Your task to perform on an android device: install app "Flipkart Online Shopping App" Image 0: 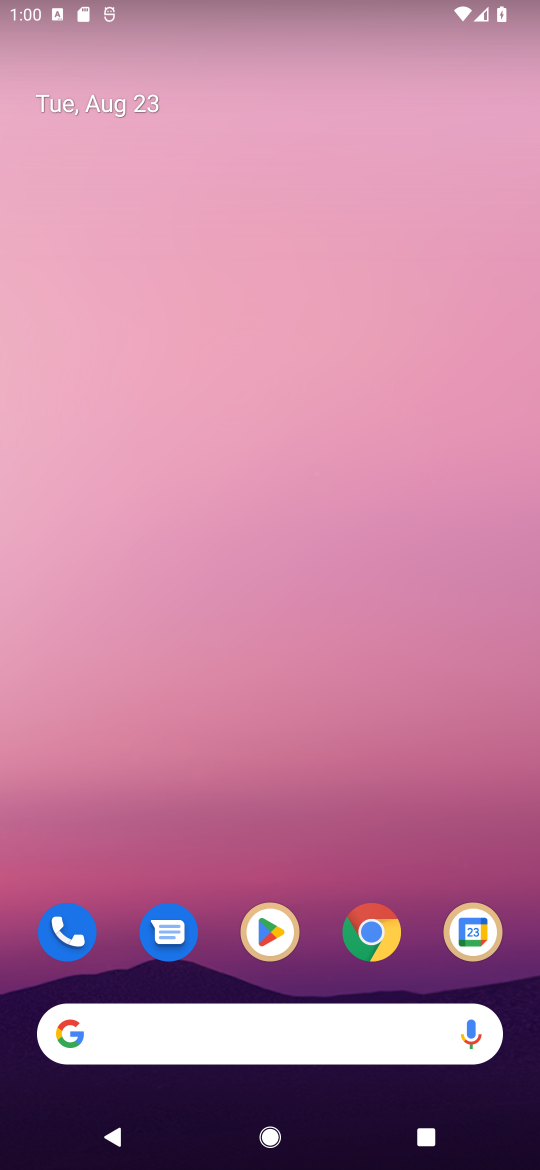
Step 0: click (284, 943)
Your task to perform on an android device: install app "Flipkart Online Shopping App" Image 1: 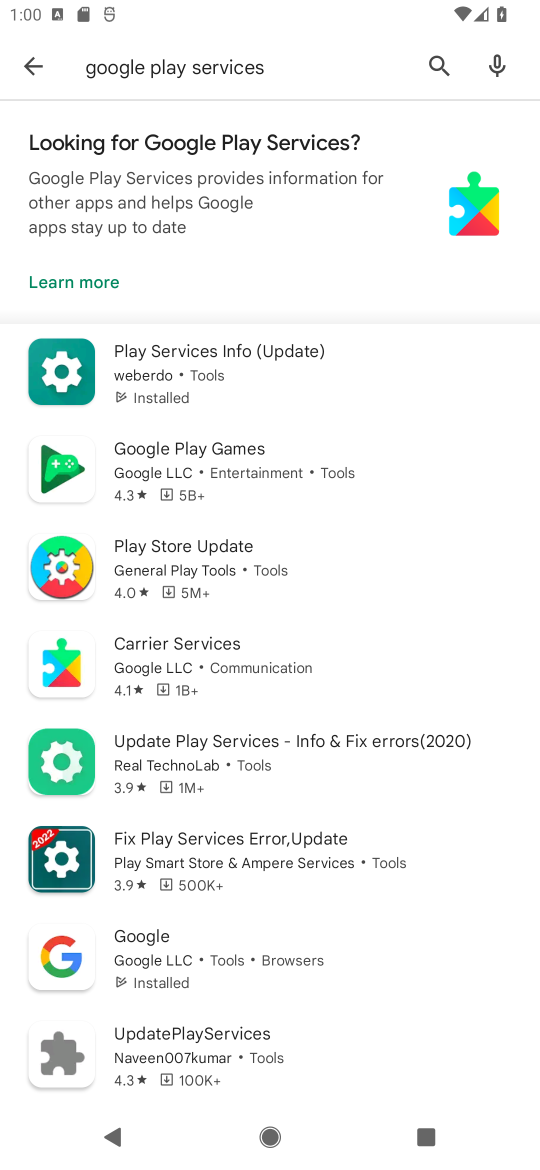
Step 1: click (419, 57)
Your task to perform on an android device: install app "Flipkart Online Shopping App" Image 2: 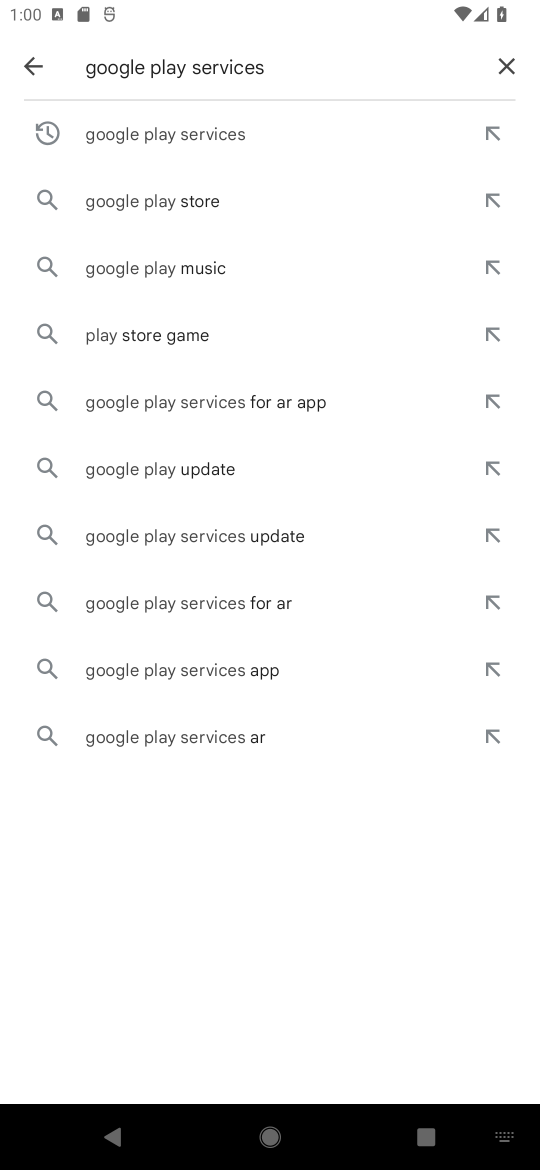
Step 2: click (516, 58)
Your task to perform on an android device: install app "Flipkart Online Shopping App" Image 3: 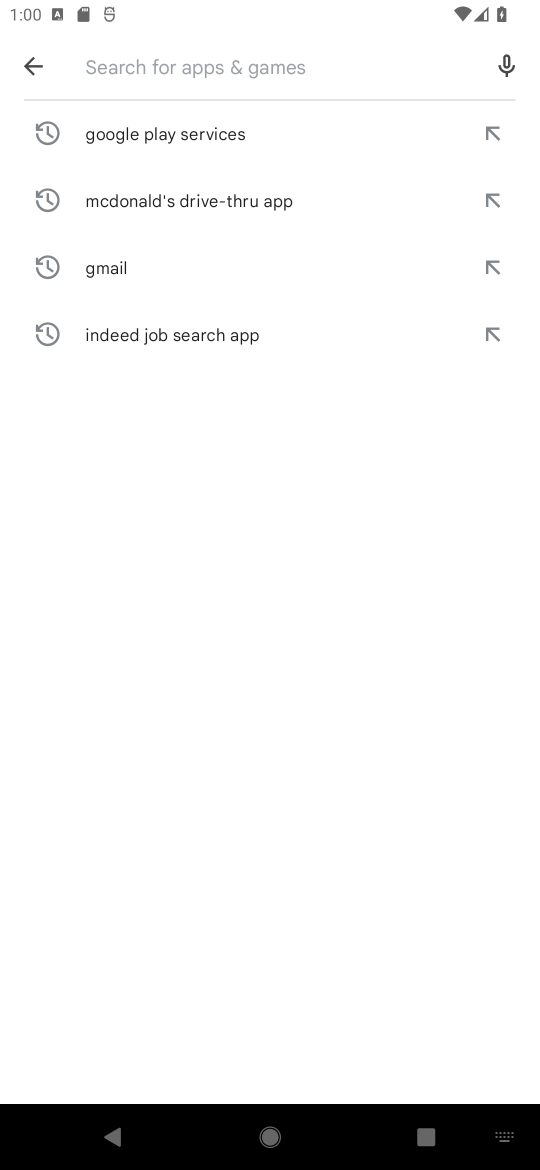
Step 3: click (257, 48)
Your task to perform on an android device: install app "Flipkart Online Shopping App" Image 4: 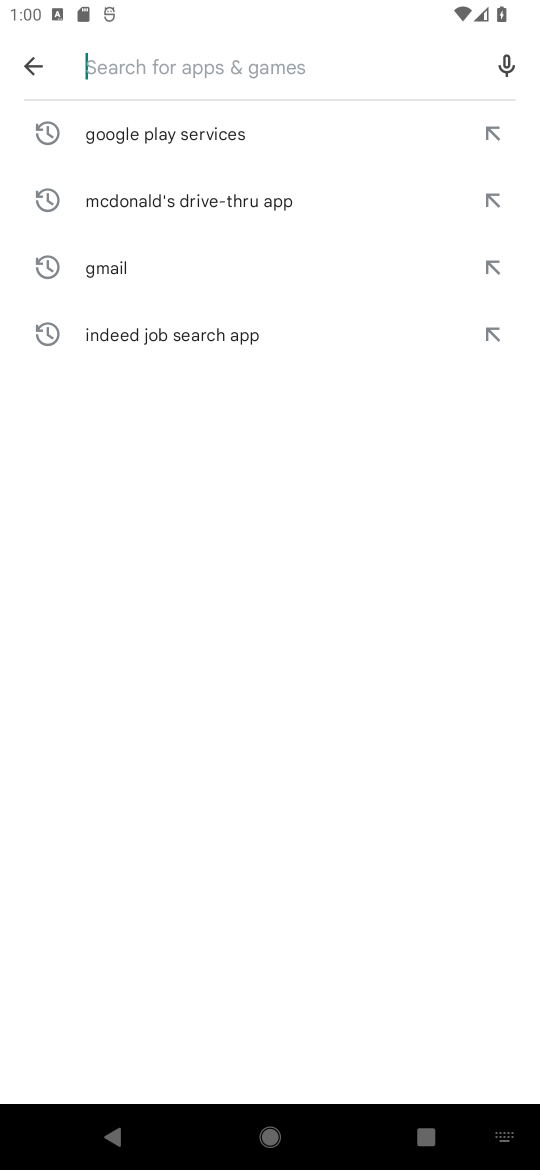
Step 4: type "Flipkart Online Shopping App"
Your task to perform on an android device: install app "Flipkart Online Shopping App" Image 5: 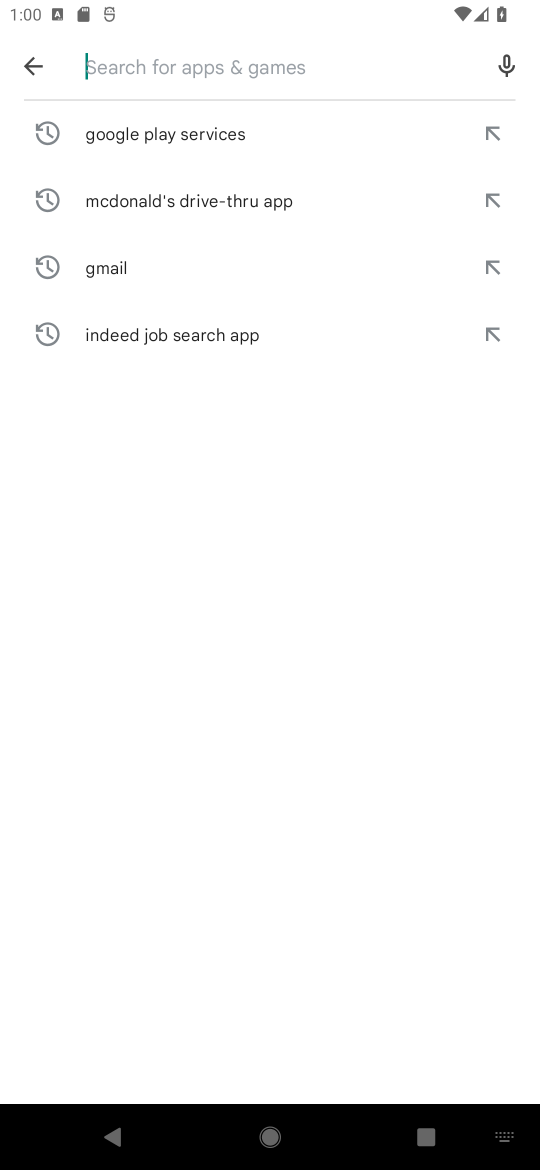
Step 5: click (230, 764)
Your task to perform on an android device: install app "Flipkart Online Shopping App" Image 6: 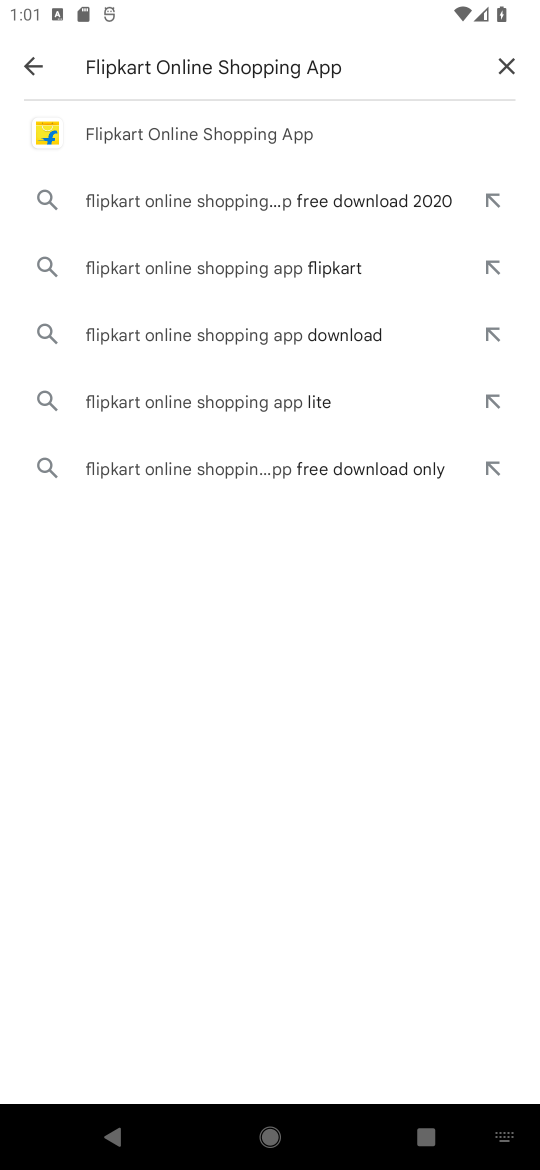
Step 6: click (197, 137)
Your task to perform on an android device: install app "Flipkart Online Shopping App" Image 7: 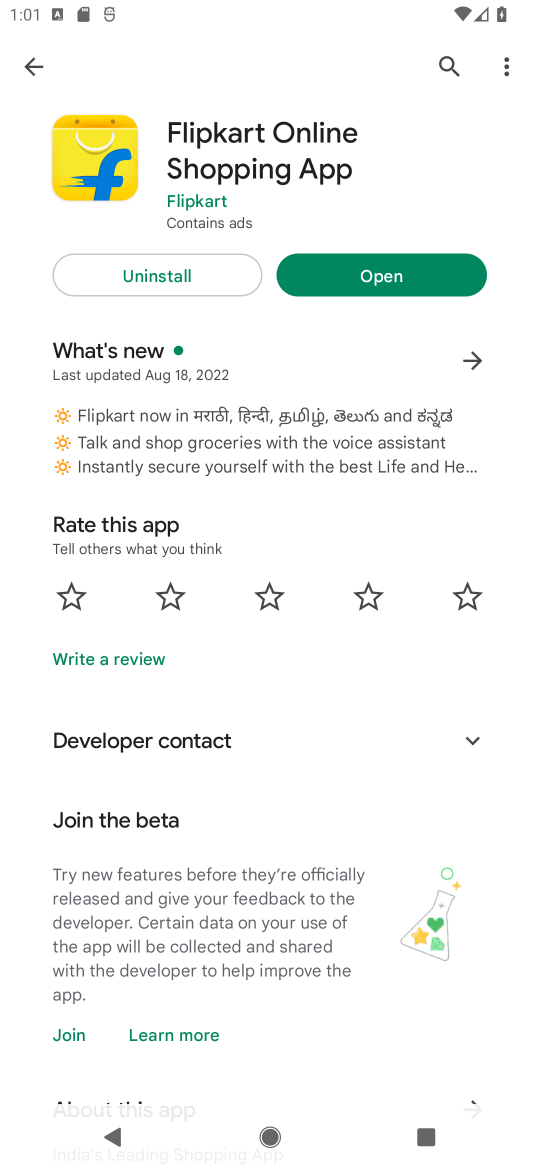
Step 7: task complete